Your task to perform on an android device: Open Wikipedia Image 0: 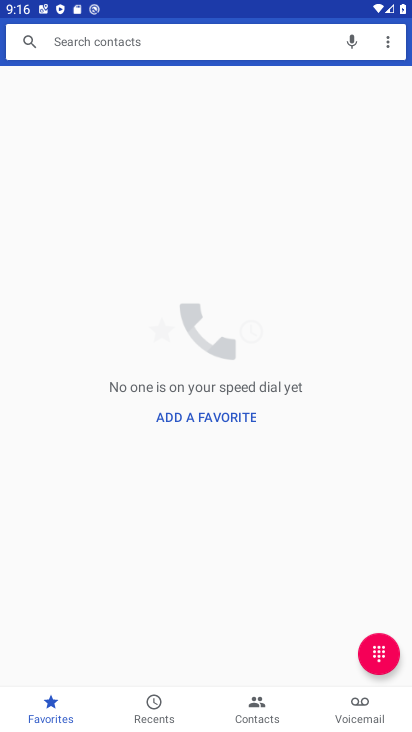
Step 0: press home button
Your task to perform on an android device: Open Wikipedia Image 1: 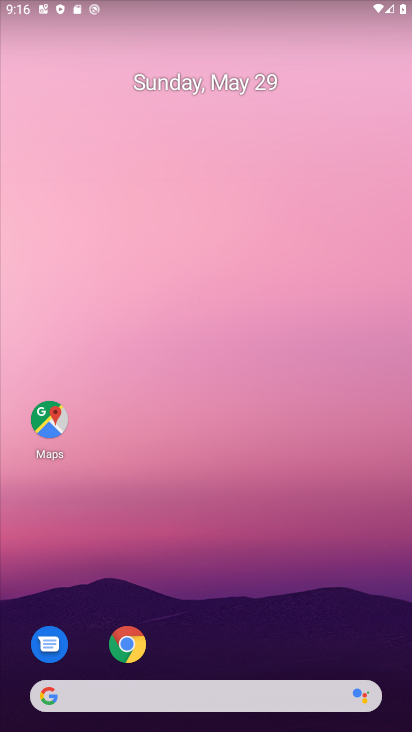
Step 1: drag from (233, 623) to (256, 382)
Your task to perform on an android device: Open Wikipedia Image 2: 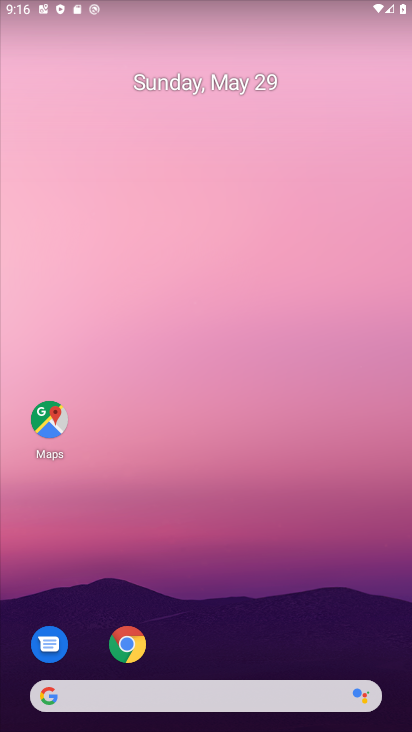
Step 2: click (128, 644)
Your task to perform on an android device: Open Wikipedia Image 3: 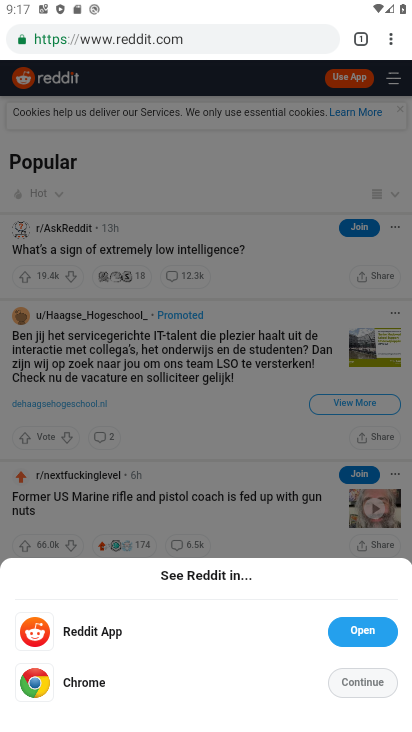
Step 3: click (197, 183)
Your task to perform on an android device: Open Wikipedia Image 4: 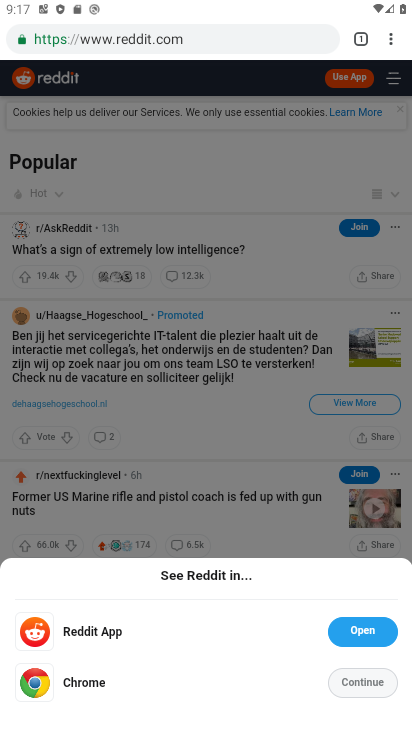
Step 4: click (386, 36)
Your task to perform on an android device: Open Wikipedia Image 5: 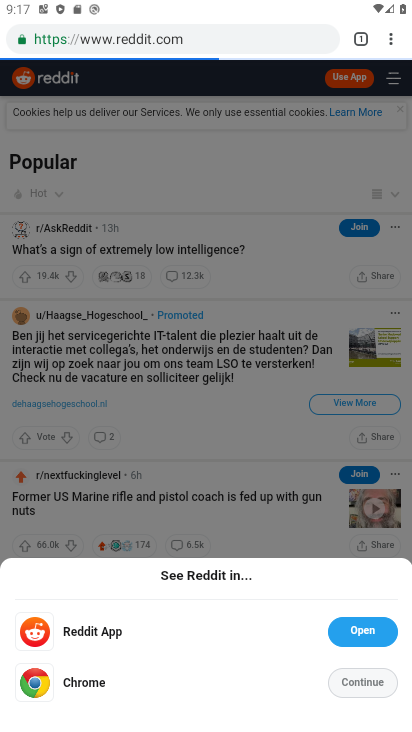
Step 5: click (392, 36)
Your task to perform on an android device: Open Wikipedia Image 6: 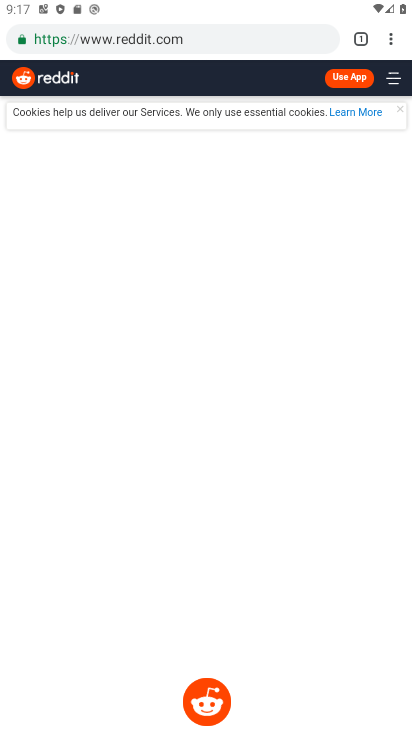
Step 6: click (387, 38)
Your task to perform on an android device: Open Wikipedia Image 7: 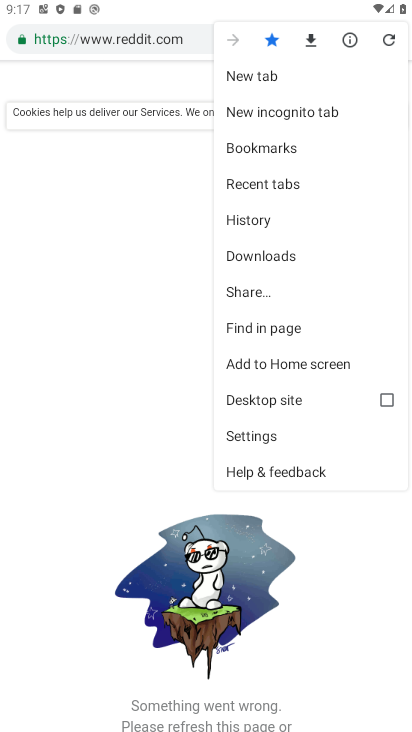
Step 7: click (289, 65)
Your task to perform on an android device: Open Wikipedia Image 8: 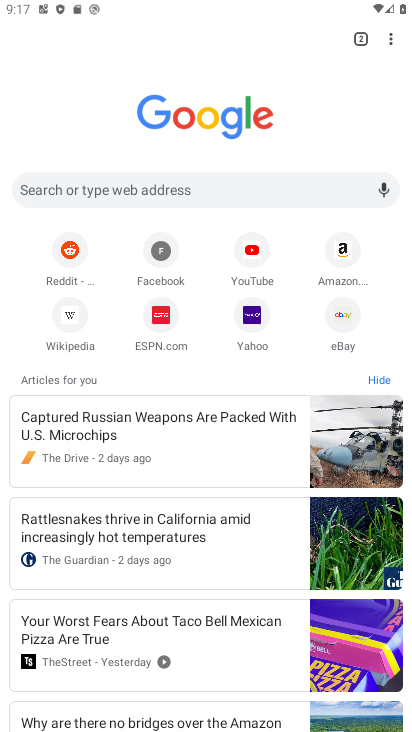
Step 8: click (68, 314)
Your task to perform on an android device: Open Wikipedia Image 9: 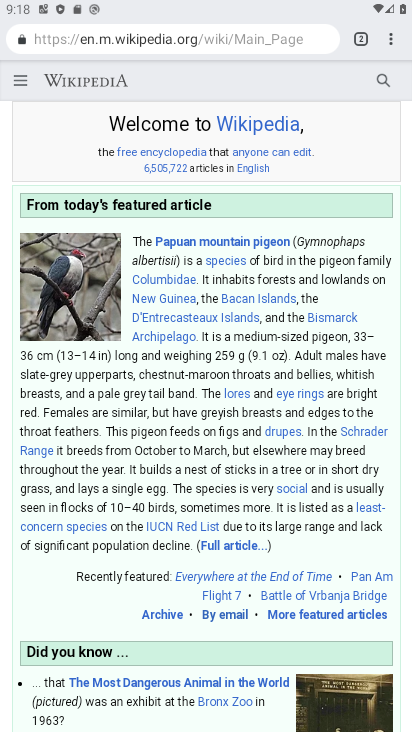
Step 9: task complete